Your task to perform on an android device: turn notification dots off Image 0: 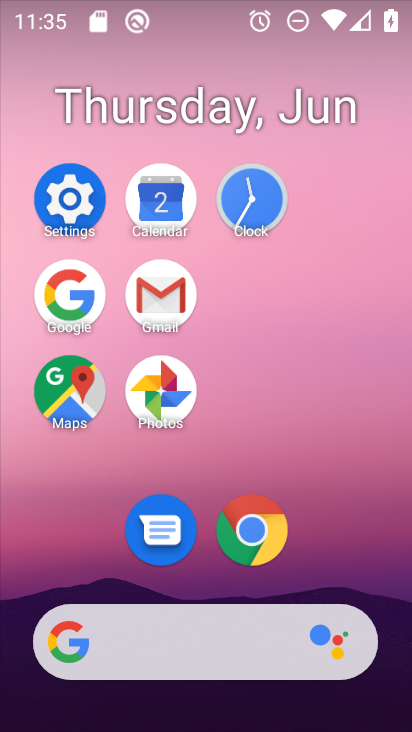
Step 0: click (82, 230)
Your task to perform on an android device: turn notification dots off Image 1: 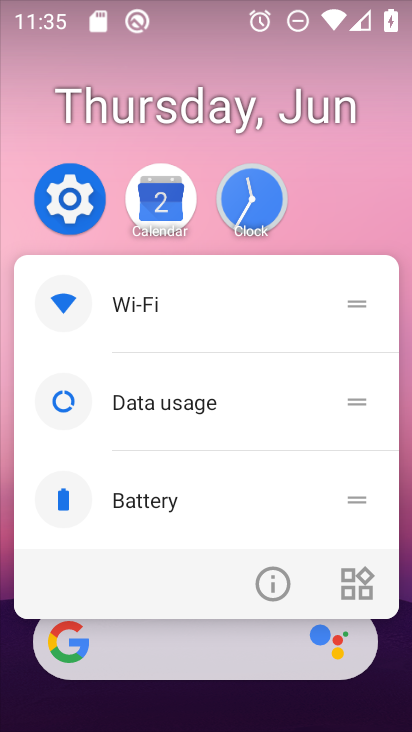
Step 1: click (60, 193)
Your task to perform on an android device: turn notification dots off Image 2: 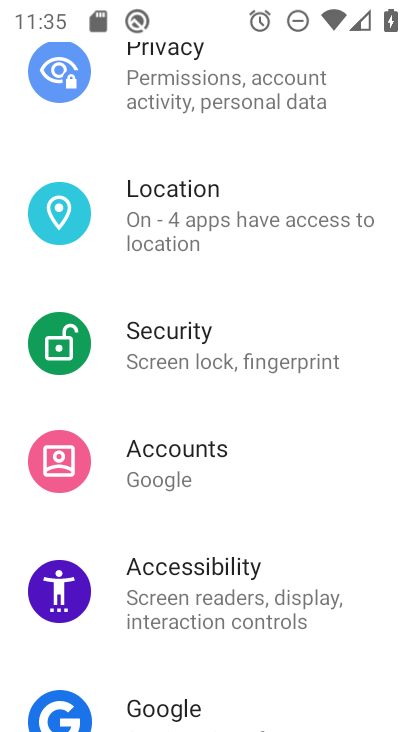
Step 2: drag from (278, 171) to (263, 401)
Your task to perform on an android device: turn notification dots off Image 3: 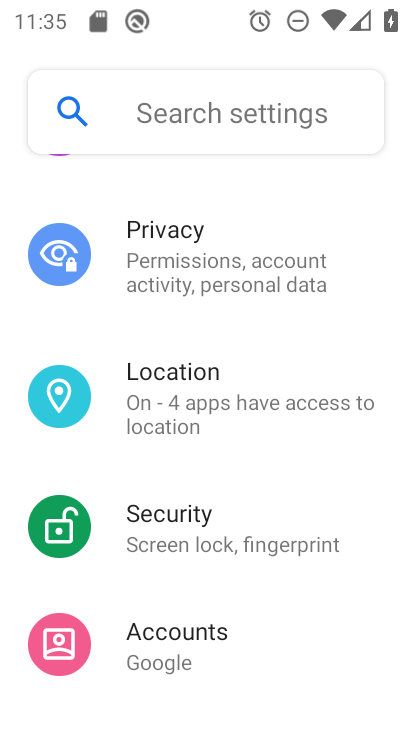
Step 3: drag from (350, 237) to (306, 428)
Your task to perform on an android device: turn notification dots off Image 4: 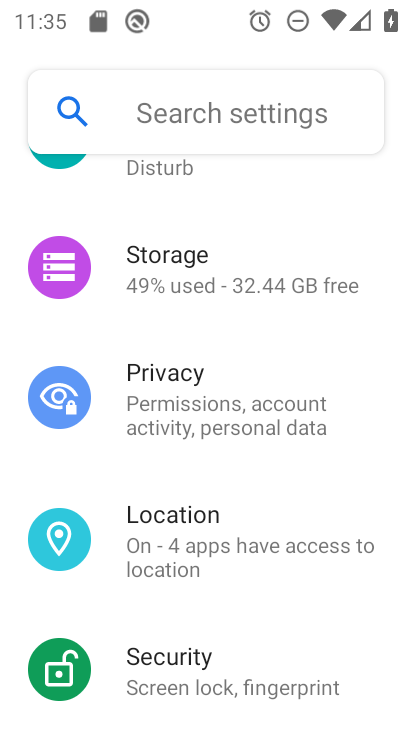
Step 4: drag from (290, 175) to (264, 573)
Your task to perform on an android device: turn notification dots off Image 5: 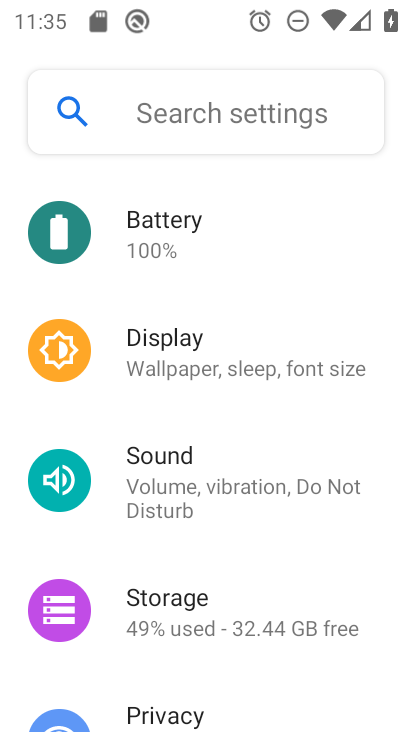
Step 5: drag from (273, 165) to (240, 553)
Your task to perform on an android device: turn notification dots off Image 6: 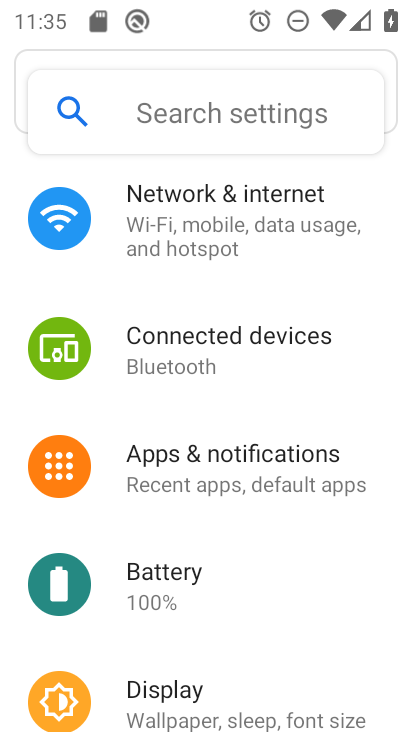
Step 6: click (295, 478)
Your task to perform on an android device: turn notification dots off Image 7: 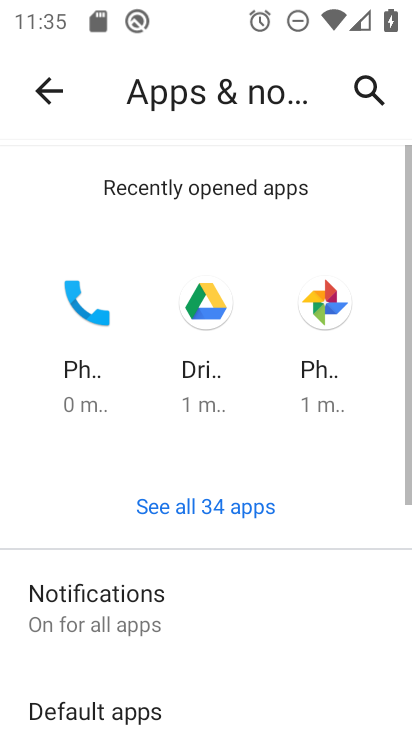
Step 7: click (159, 603)
Your task to perform on an android device: turn notification dots off Image 8: 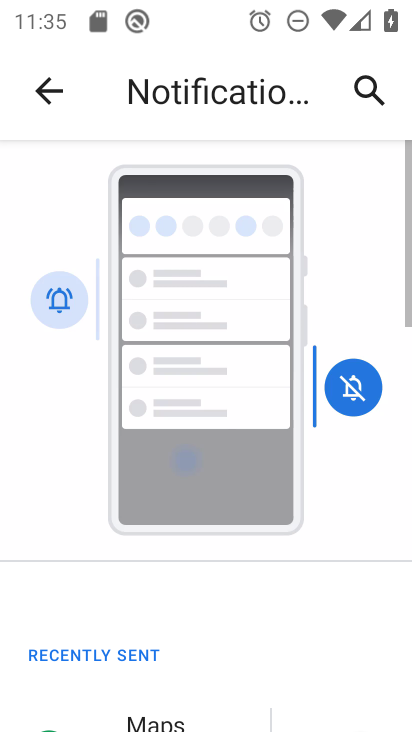
Step 8: drag from (181, 593) to (246, 26)
Your task to perform on an android device: turn notification dots off Image 9: 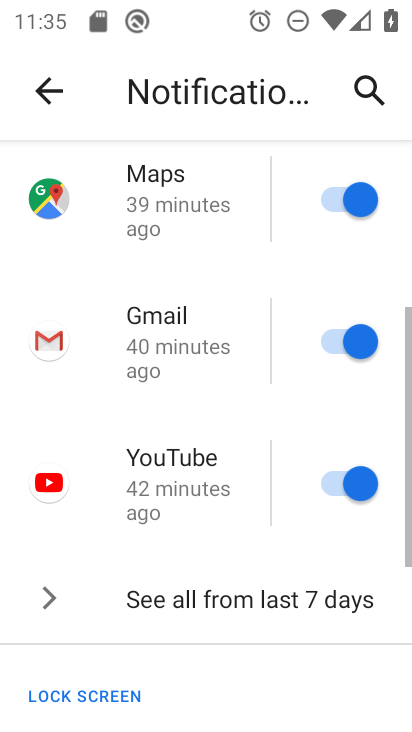
Step 9: drag from (233, 544) to (245, 113)
Your task to perform on an android device: turn notification dots off Image 10: 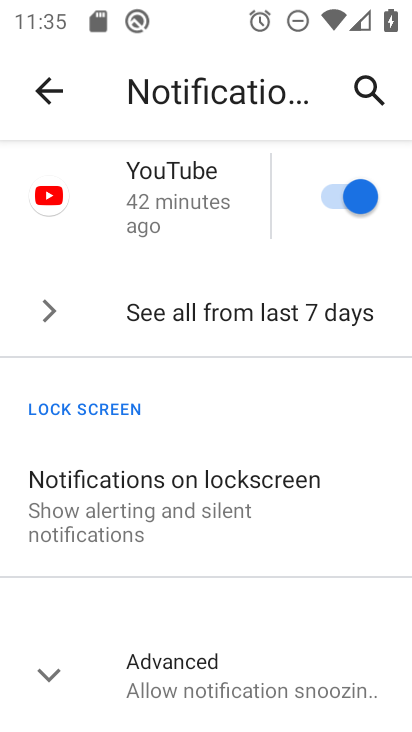
Step 10: click (228, 692)
Your task to perform on an android device: turn notification dots off Image 11: 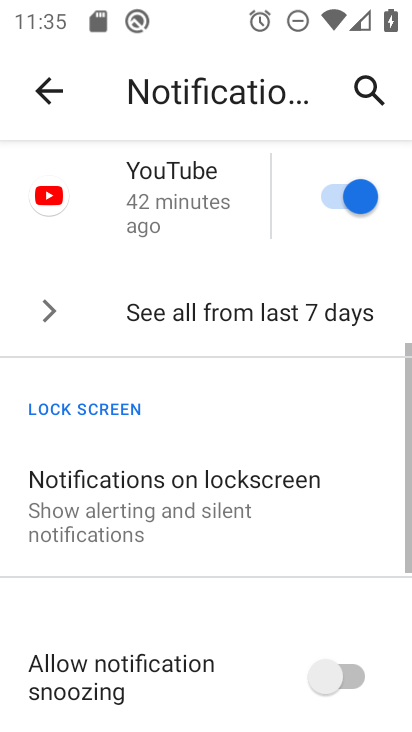
Step 11: drag from (229, 670) to (239, 354)
Your task to perform on an android device: turn notification dots off Image 12: 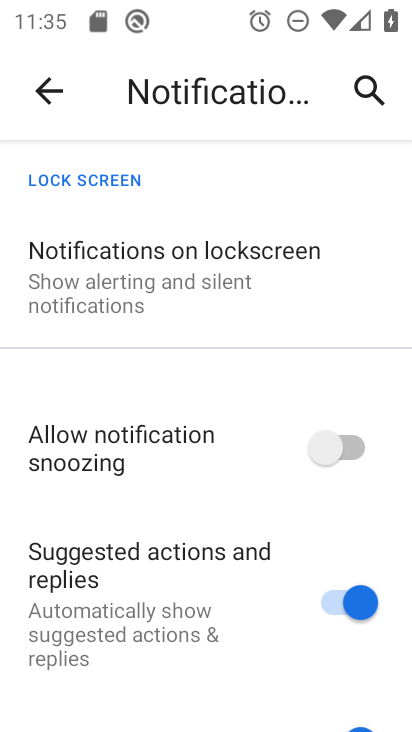
Step 12: drag from (297, 637) to (341, 287)
Your task to perform on an android device: turn notification dots off Image 13: 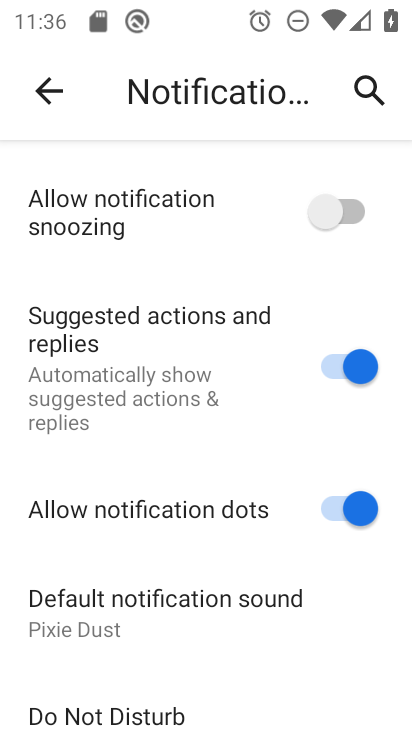
Step 13: click (334, 519)
Your task to perform on an android device: turn notification dots off Image 14: 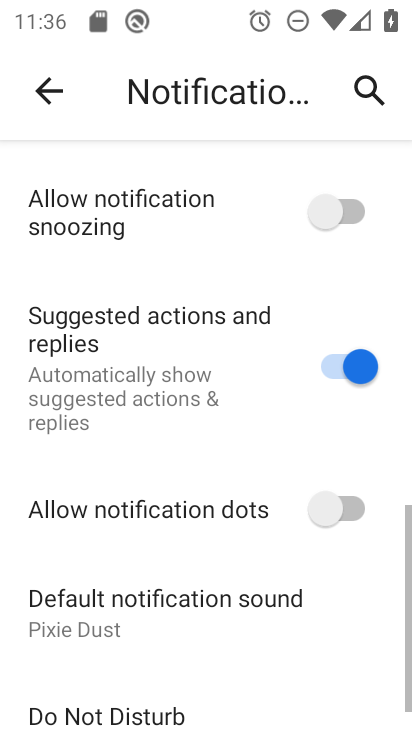
Step 14: task complete